Your task to perform on an android device: turn off sleep mode Image 0: 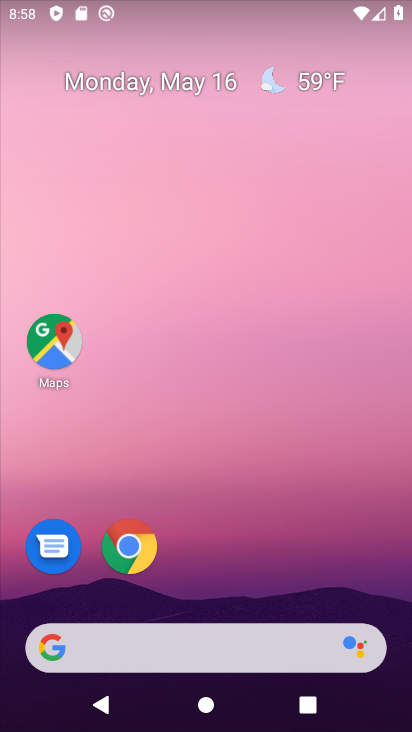
Step 0: drag from (164, 588) to (135, 102)
Your task to perform on an android device: turn off sleep mode Image 1: 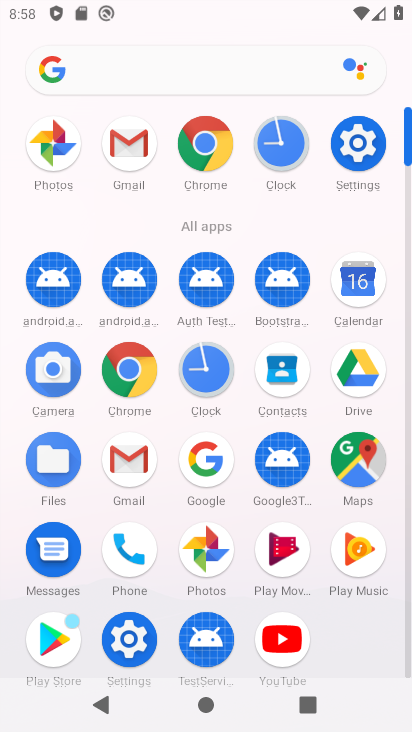
Step 1: click (363, 159)
Your task to perform on an android device: turn off sleep mode Image 2: 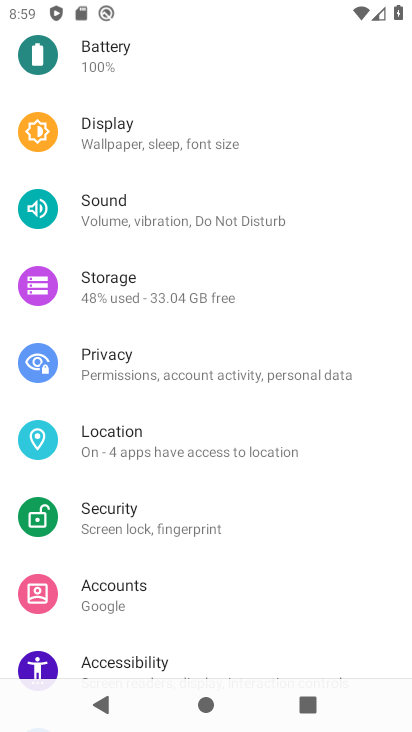
Step 2: task complete